Your task to perform on an android device: Open notification settings Image 0: 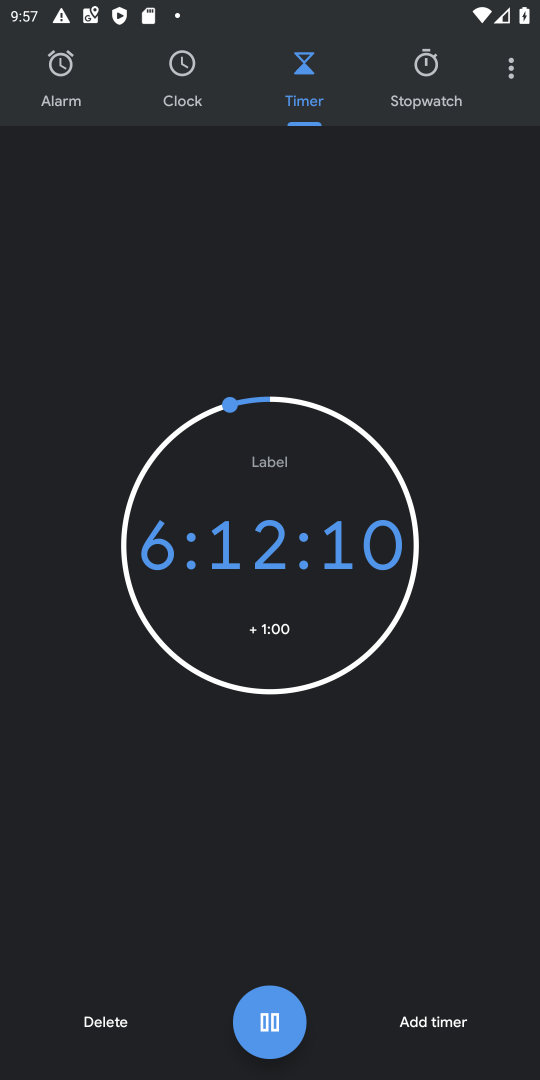
Step 0: press home button
Your task to perform on an android device: Open notification settings Image 1: 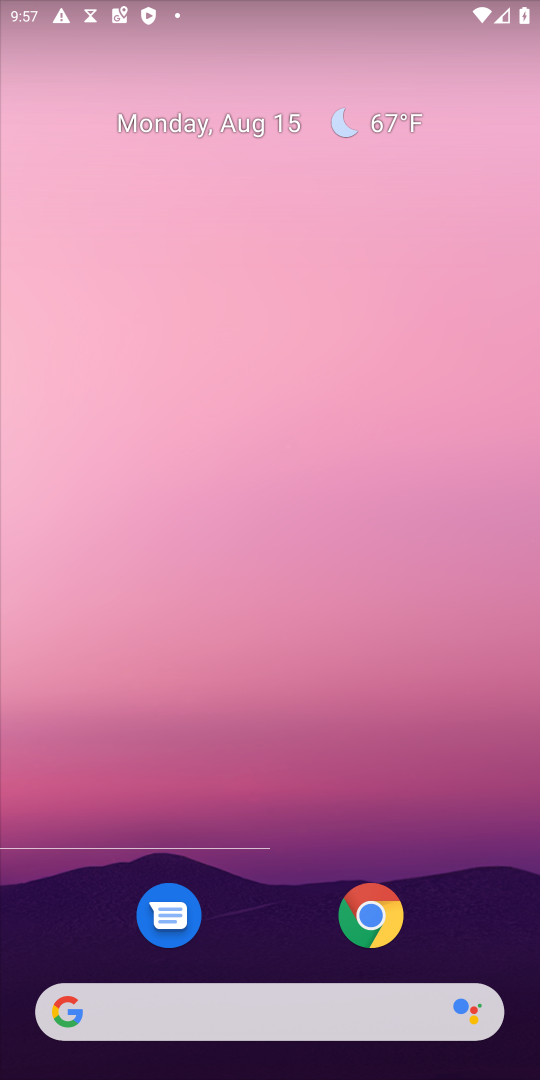
Step 1: drag from (286, 869) to (277, 161)
Your task to perform on an android device: Open notification settings Image 2: 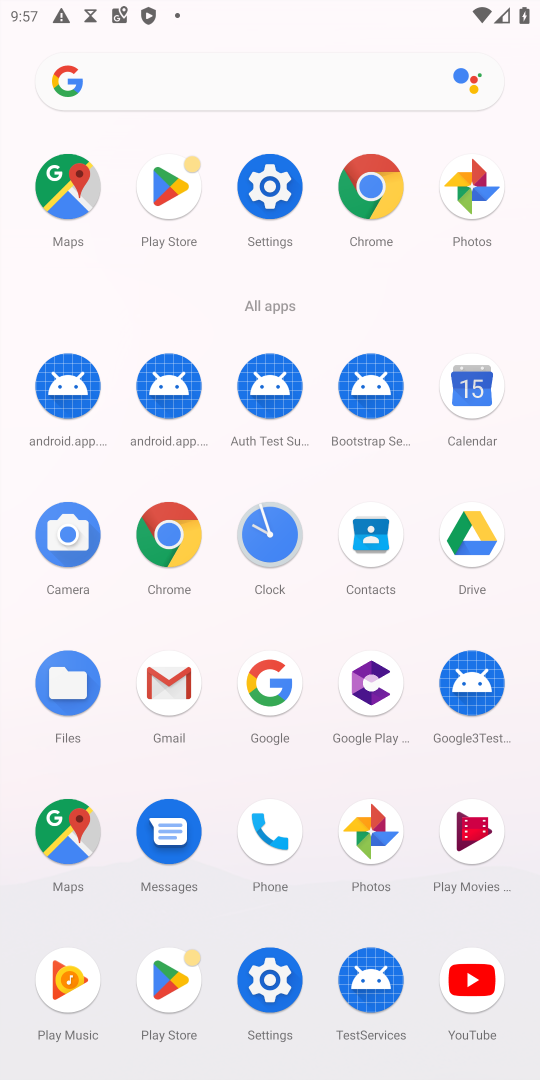
Step 2: click (275, 205)
Your task to perform on an android device: Open notification settings Image 3: 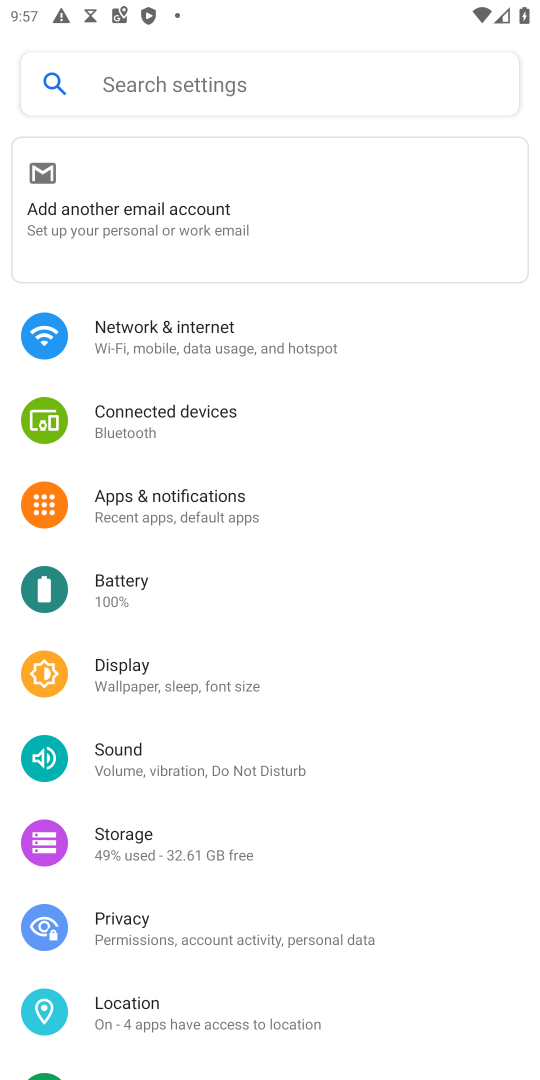
Step 3: click (156, 508)
Your task to perform on an android device: Open notification settings Image 4: 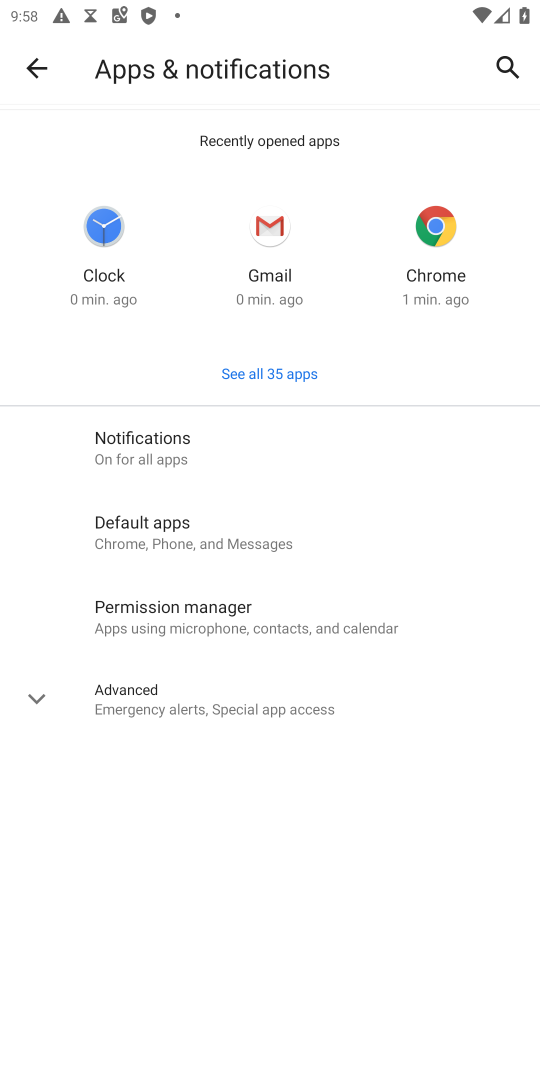
Step 4: click (144, 448)
Your task to perform on an android device: Open notification settings Image 5: 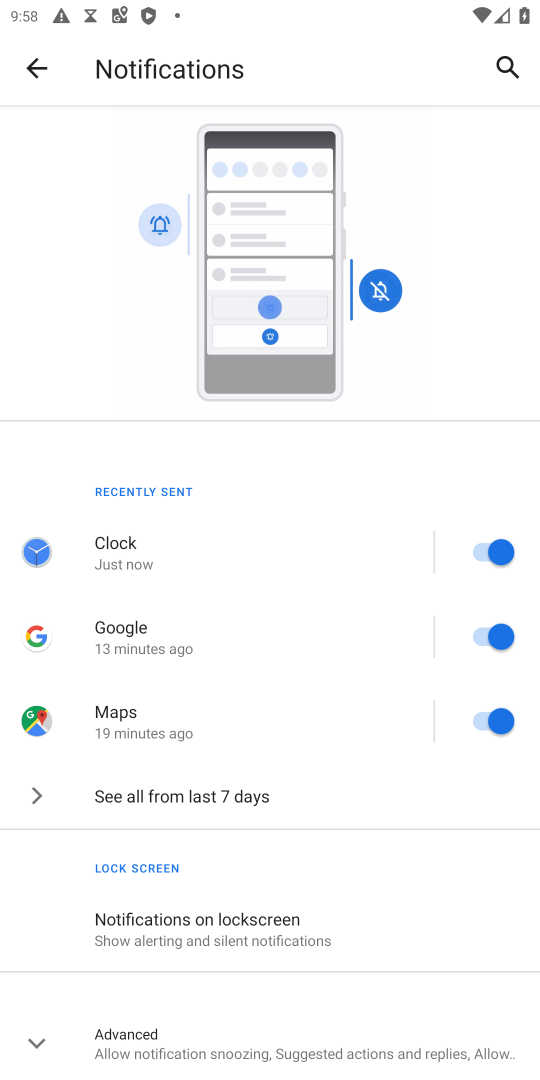
Step 5: task complete